Your task to perform on an android device: toggle pop-ups in chrome Image 0: 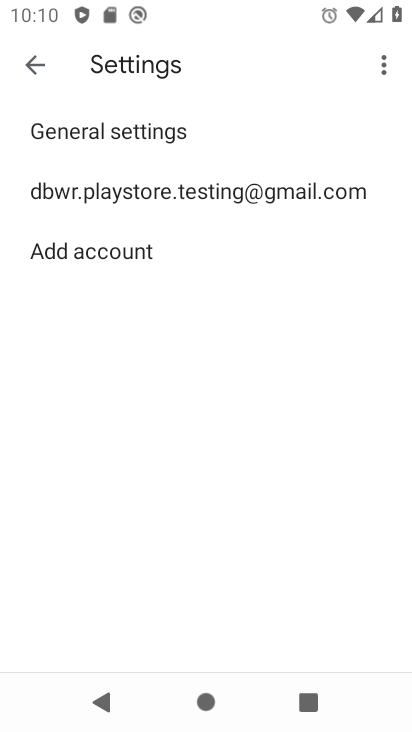
Step 0: press home button
Your task to perform on an android device: toggle pop-ups in chrome Image 1: 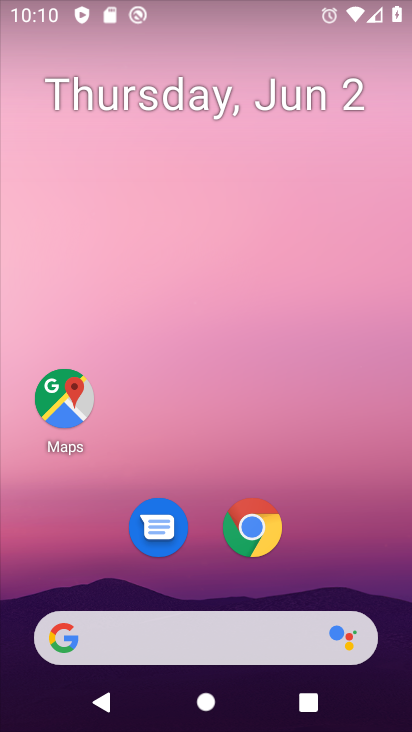
Step 1: click (257, 530)
Your task to perform on an android device: toggle pop-ups in chrome Image 2: 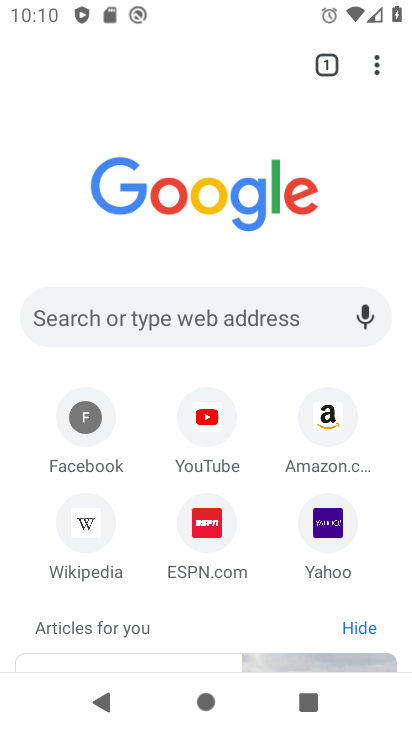
Step 2: drag from (377, 63) to (172, 541)
Your task to perform on an android device: toggle pop-ups in chrome Image 3: 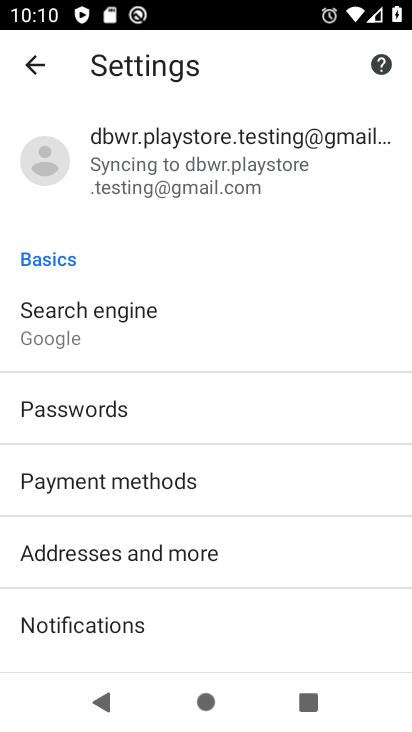
Step 3: drag from (150, 536) to (106, 82)
Your task to perform on an android device: toggle pop-ups in chrome Image 4: 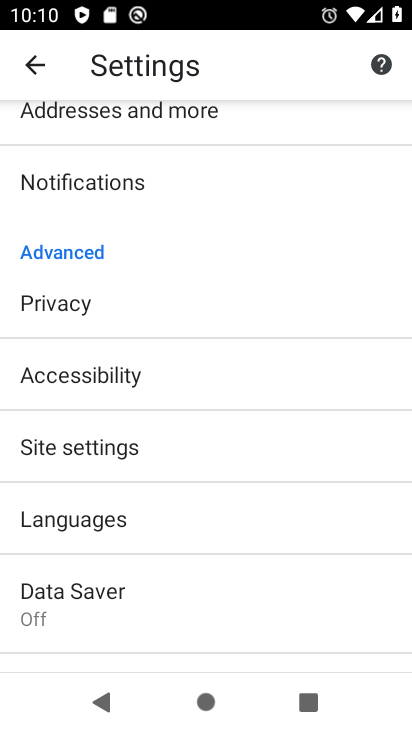
Step 4: click (77, 433)
Your task to perform on an android device: toggle pop-ups in chrome Image 5: 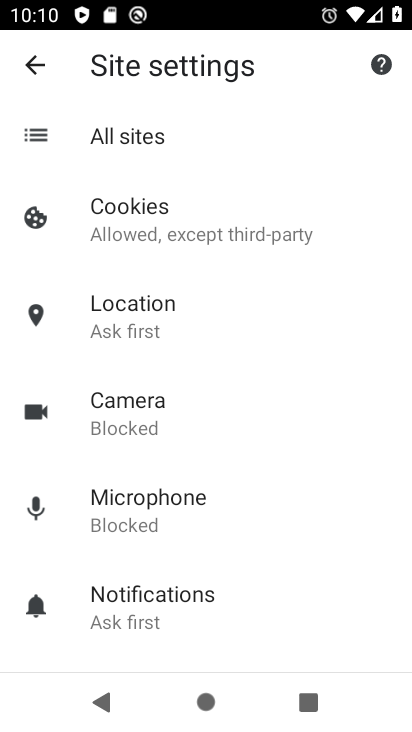
Step 5: drag from (142, 514) to (73, 0)
Your task to perform on an android device: toggle pop-ups in chrome Image 6: 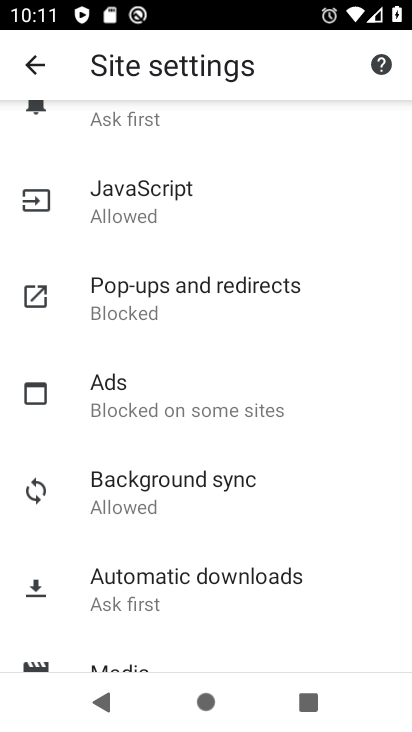
Step 6: click (130, 312)
Your task to perform on an android device: toggle pop-ups in chrome Image 7: 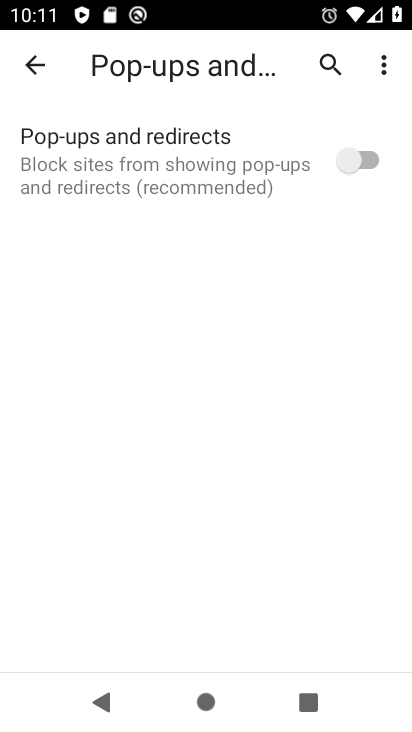
Step 7: click (361, 156)
Your task to perform on an android device: toggle pop-ups in chrome Image 8: 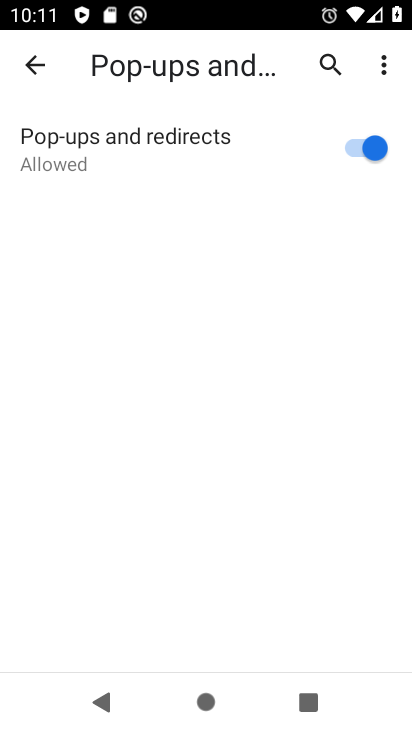
Step 8: task complete